Your task to perform on an android device: Go to Wikipedia Image 0: 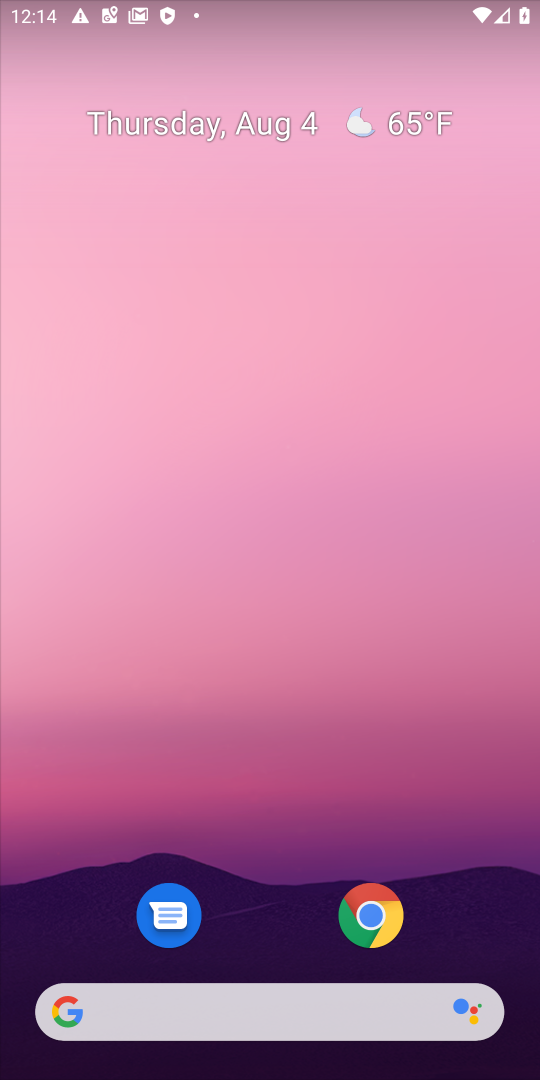
Step 0: click (361, 930)
Your task to perform on an android device: Go to Wikipedia Image 1: 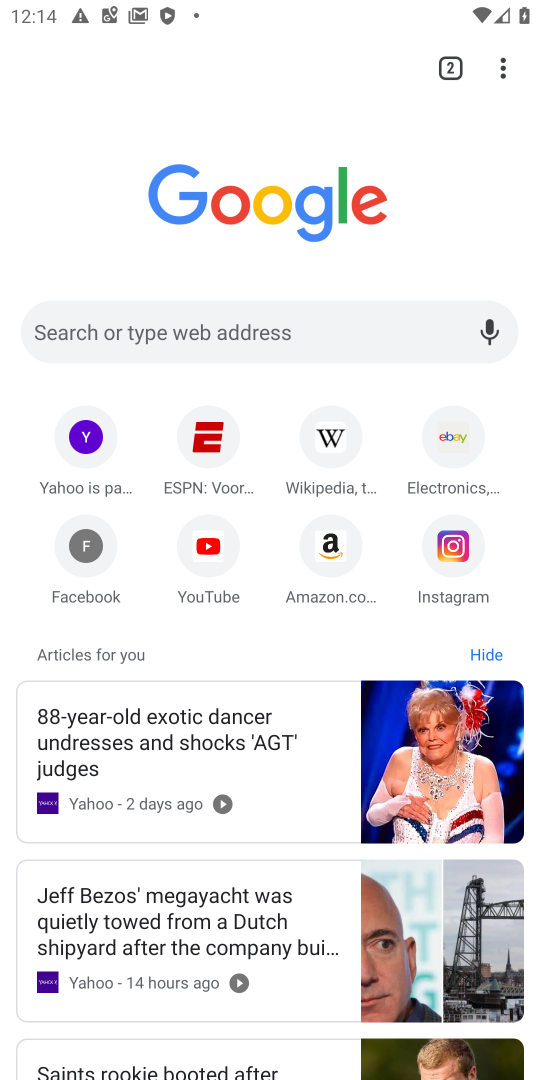
Step 1: click (332, 432)
Your task to perform on an android device: Go to Wikipedia Image 2: 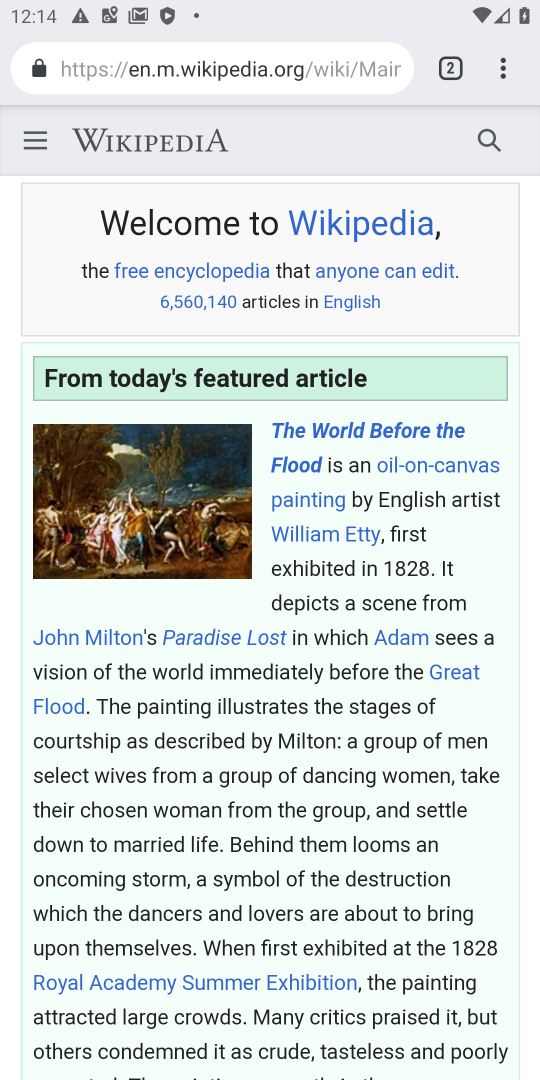
Step 2: task complete